Your task to perform on an android device: See recent photos Image 0: 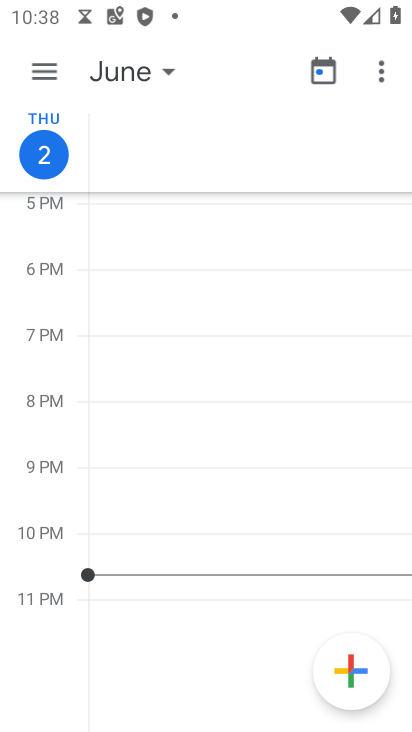
Step 0: press back button
Your task to perform on an android device: See recent photos Image 1: 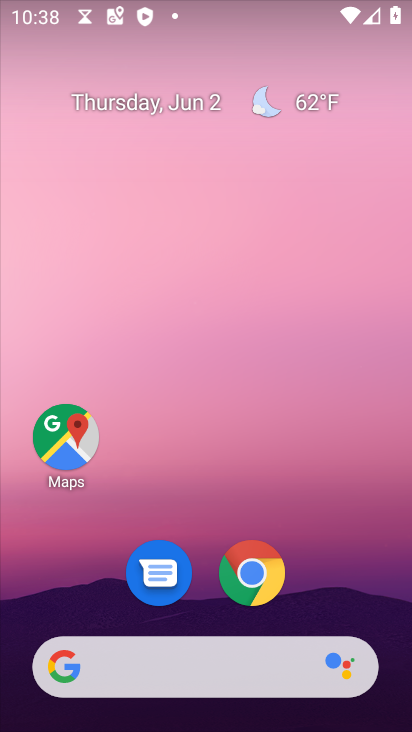
Step 1: drag from (311, 508) to (270, 3)
Your task to perform on an android device: See recent photos Image 2: 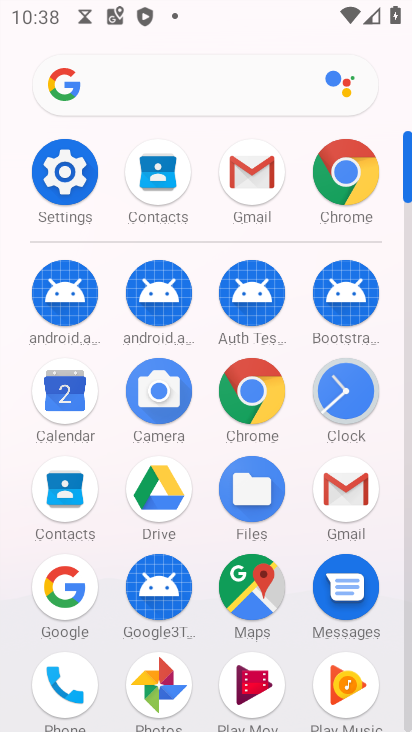
Step 2: drag from (198, 271) to (250, 129)
Your task to perform on an android device: See recent photos Image 3: 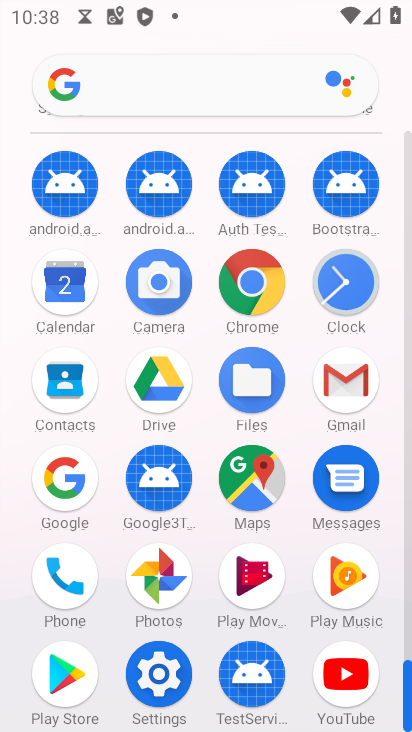
Step 3: click (159, 575)
Your task to perform on an android device: See recent photos Image 4: 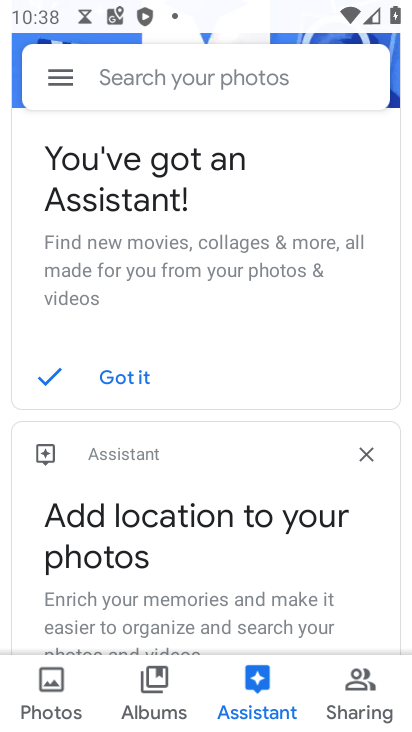
Step 4: click (57, 690)
Your task to perform on an android device: See recent photos Image 5: 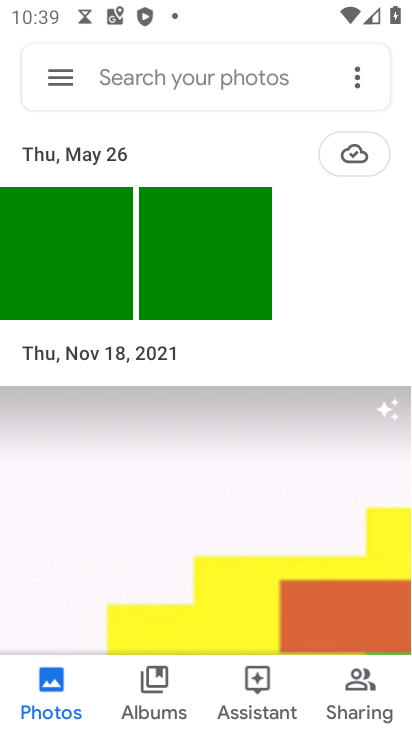
Step 5: task complete